Your task to perform on an android device: Go to Maps Image 0: 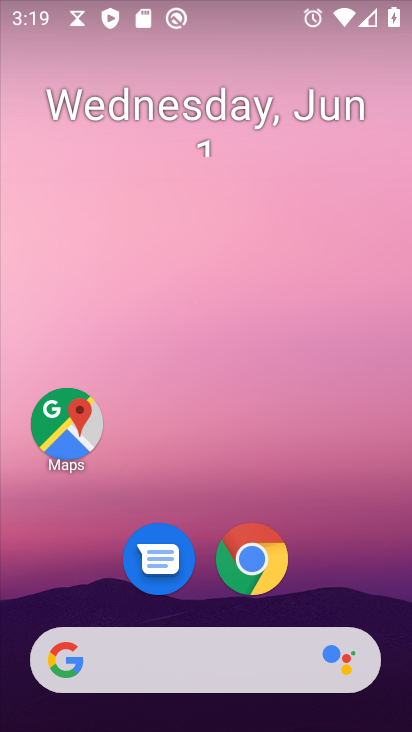
Step 0: drag from (198, 564) to (194, 37)
Your task to perform on an android device: Go to Maps Image 1: 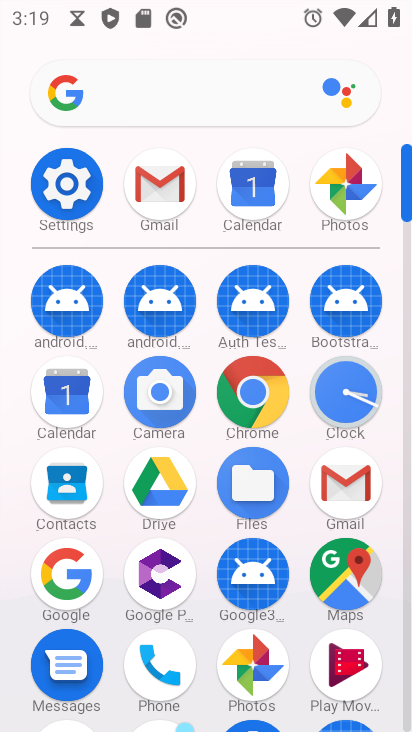
Step 1: drag from (214, 106) to (214, 0)
Your task to perform on an android device: Go to Maps Image 2: 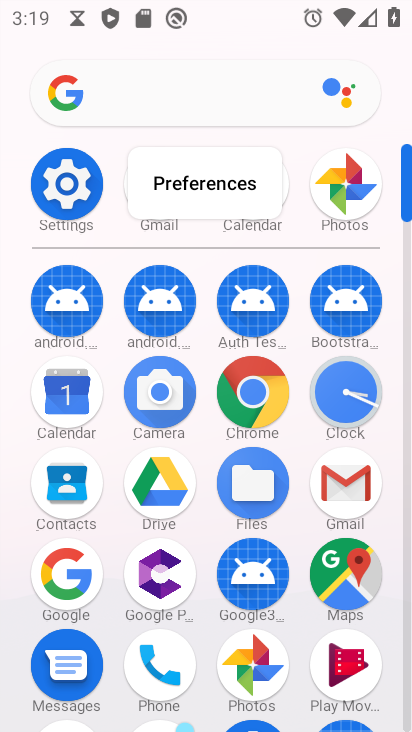
Step 2: click (338, 578)
Your task to perform on an android device: Go to Maps Image 3: 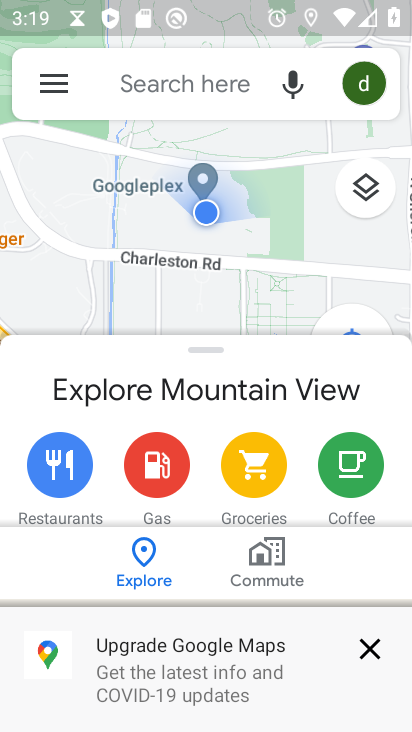
Step 3: task complete